Your task to perform on an android device: turn off translation in the chrome app Image 0: 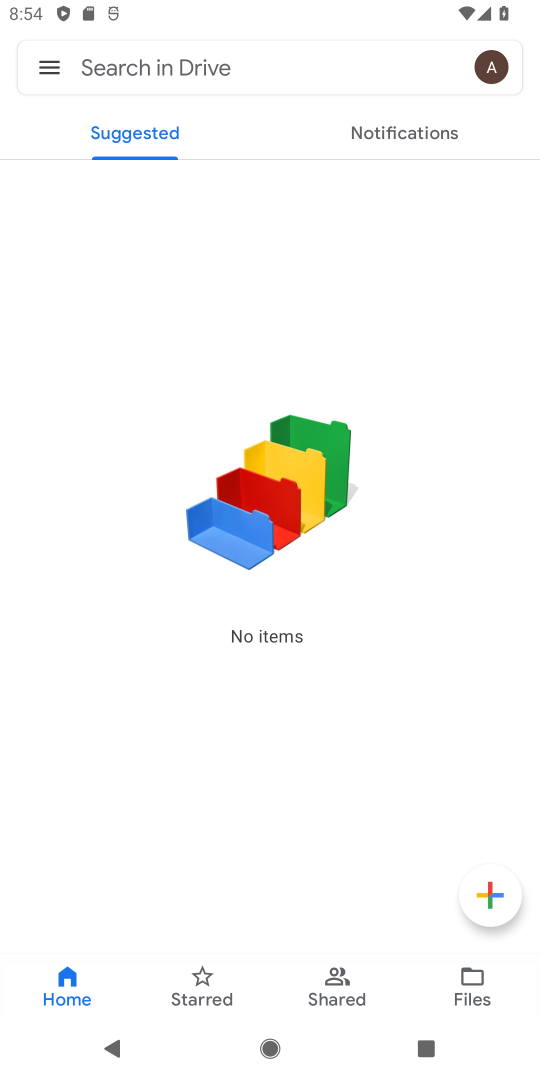
Step 0: press home button
Your task to perform on an android device: turn off translation in the chrome app Image 1: 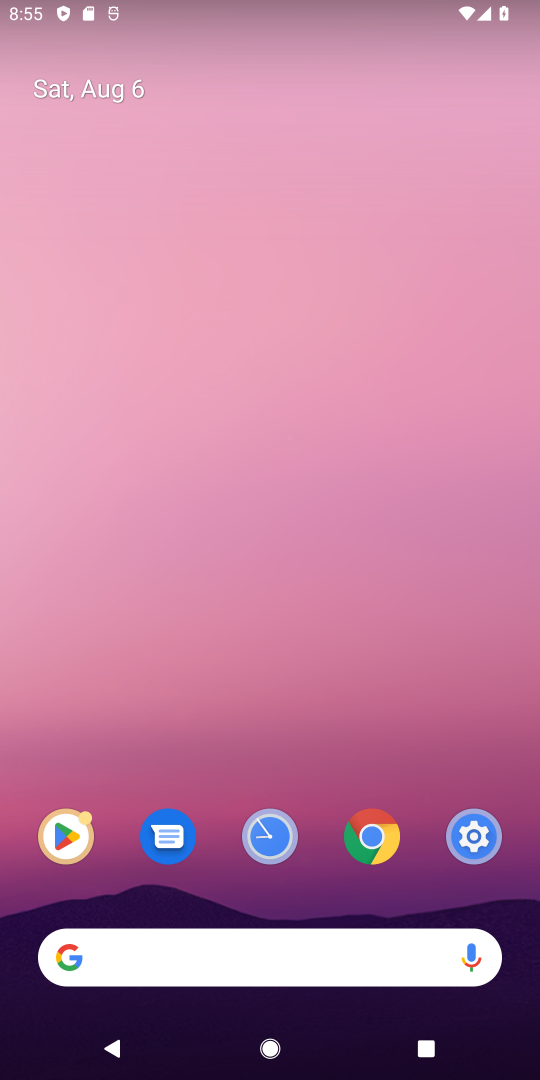
Step 1: click (384, 839)
Your task to perform on an android device: turn off translation in the chrome app Image 2: 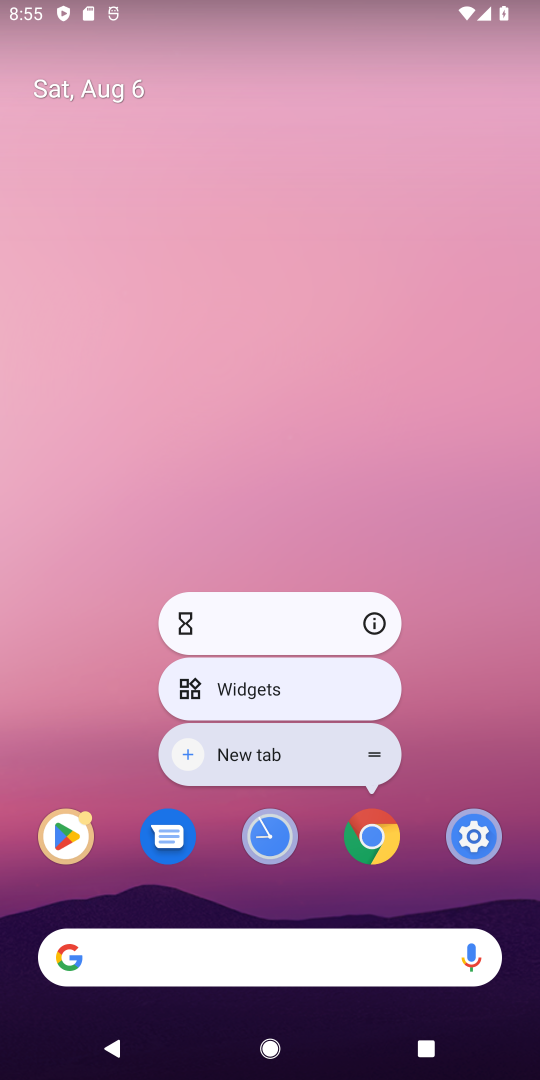
Step 2: click (197, 412)
Your task to perform on an android device: turn off translation in the chrome app Image 3: 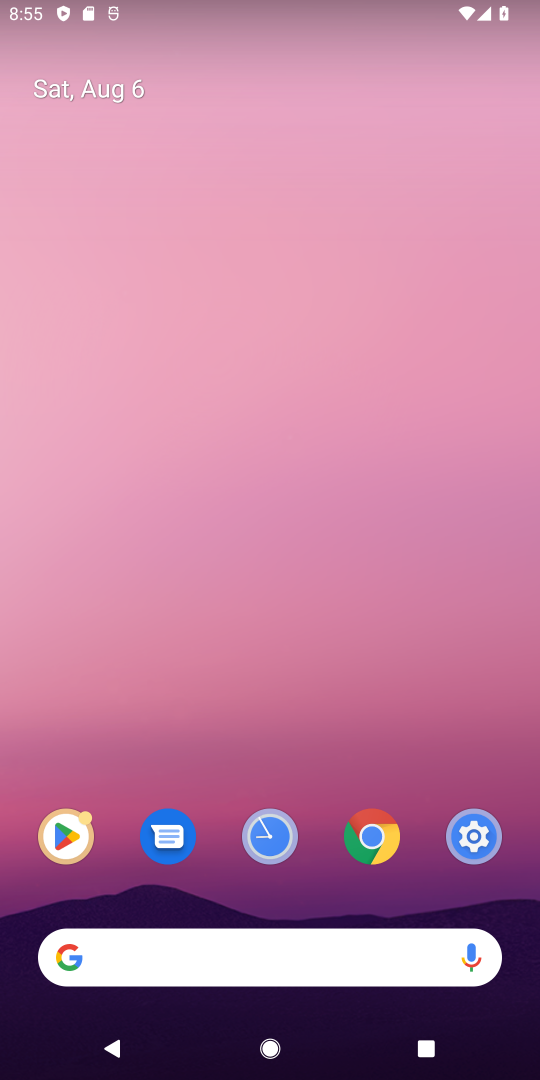
Step 3: click (362, 837)
Your task to perform on an android device: turn off translation in the chrome app Image 4: 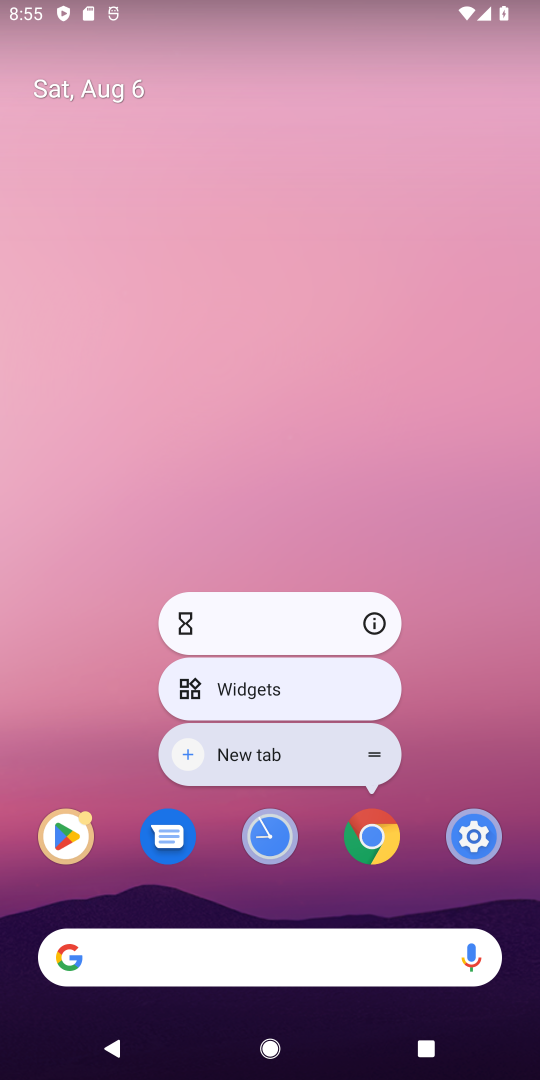
Step 4: click (377, 837)
Your task to perform on an android device: turn off translation in the chrome app Image 5: 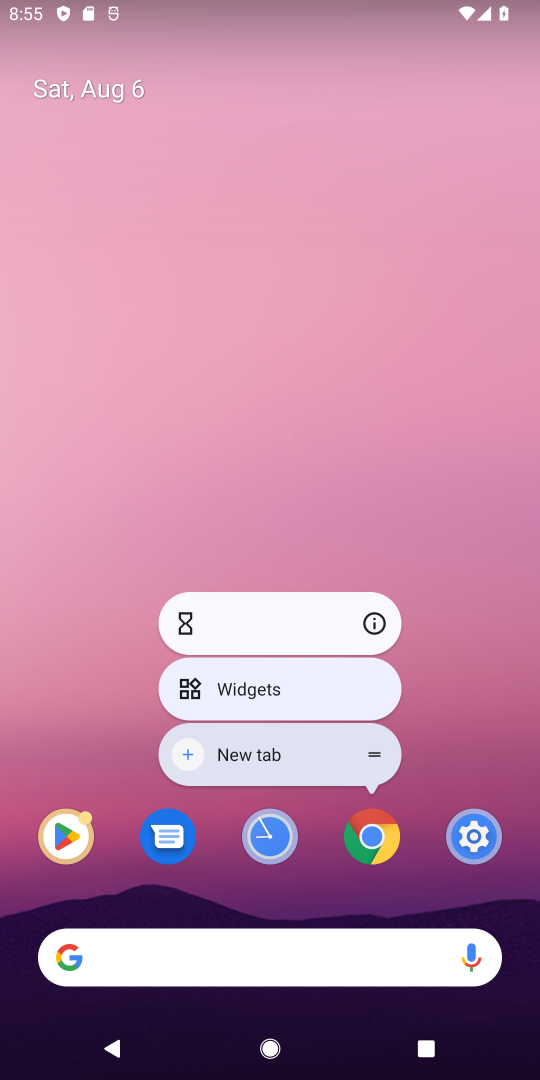
Step 5: click (374, 837)
Your task to perform on an android device: turn off translation in the chrome app Image 6: 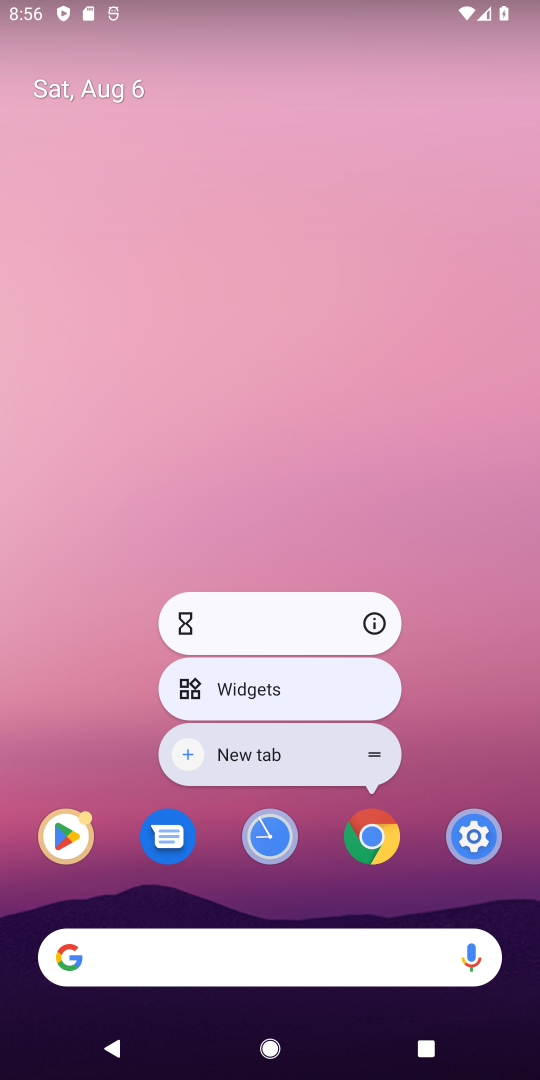
Step 6: click (368, 843)
Your task to perform on an android device: turn off translation in the chrome app Image 7: 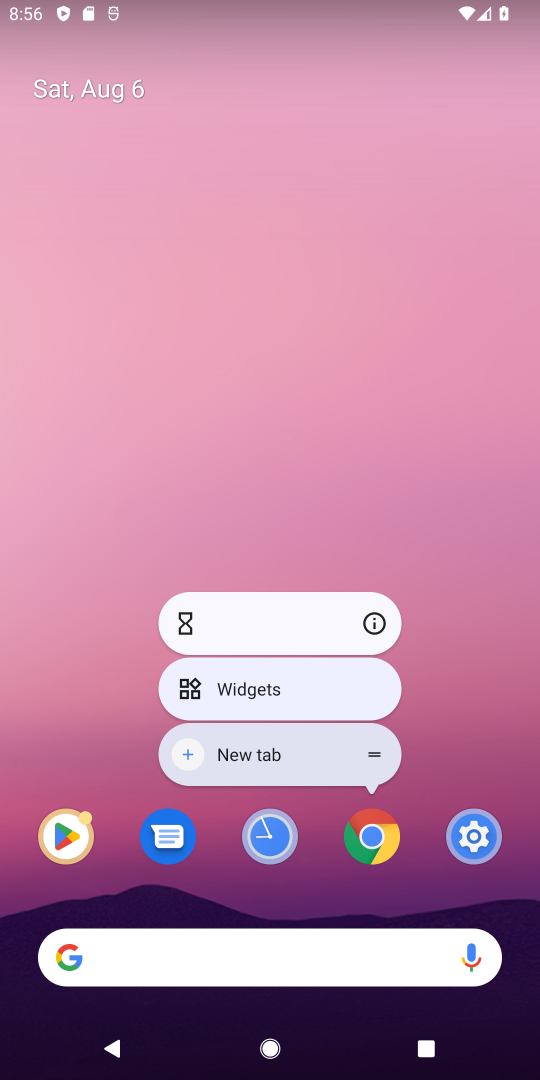
Step 7: click (364, 858)
Your task to perform on an android device: turn off translation in the chrome app Image 8: 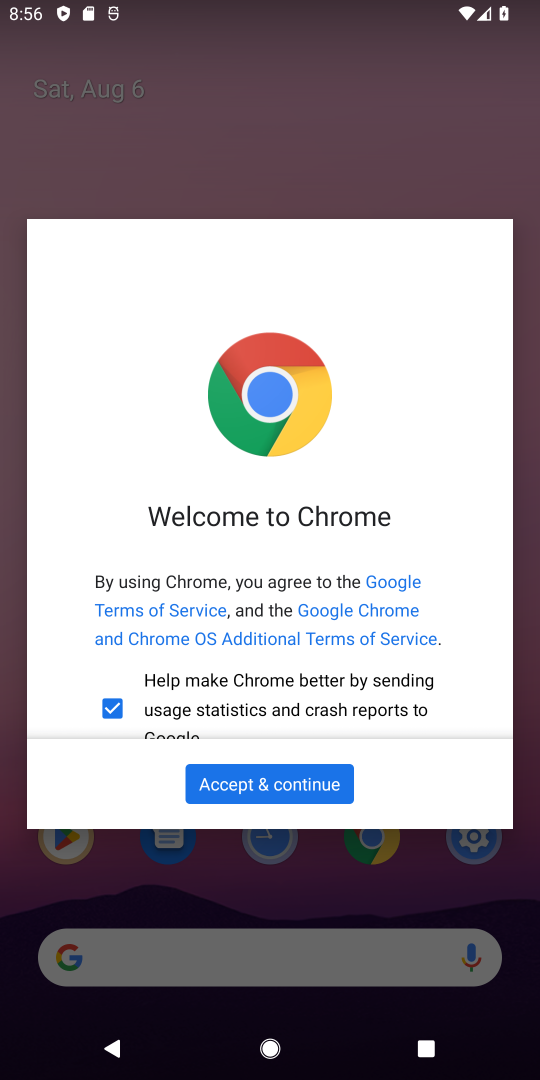
Step 8: click (276, 791)
Your task to perform on an android device: turn off translation in the chrome app Image 9: 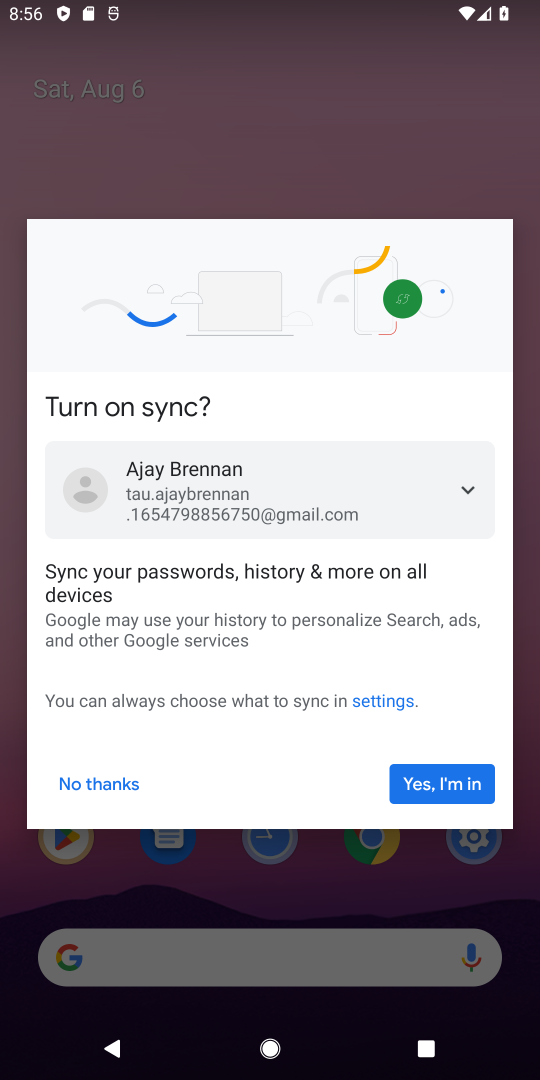
Step 9: click (464, 786)
Your task to perform on an android device: turn off translation in the chrome app Image 10: 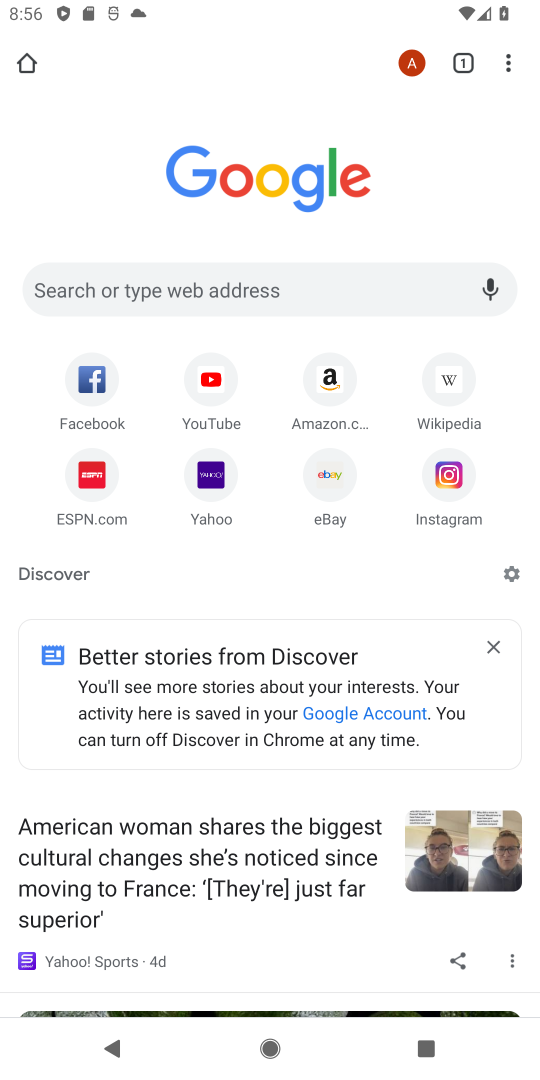
Step 10: drag from (515, 58) to (349, 544)
Your task to perform on an android device: turn off translation in the chrome app Image 11: 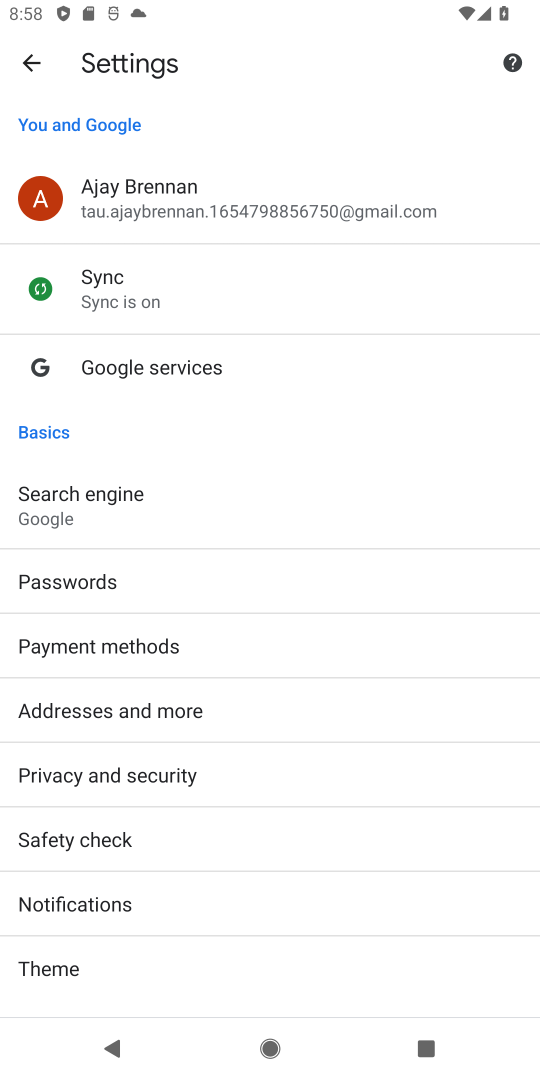
Step 11: drag from (298, 914) to (287, 412)
Your task to perform on an android device: turn off translation in the chrome app Image 12: 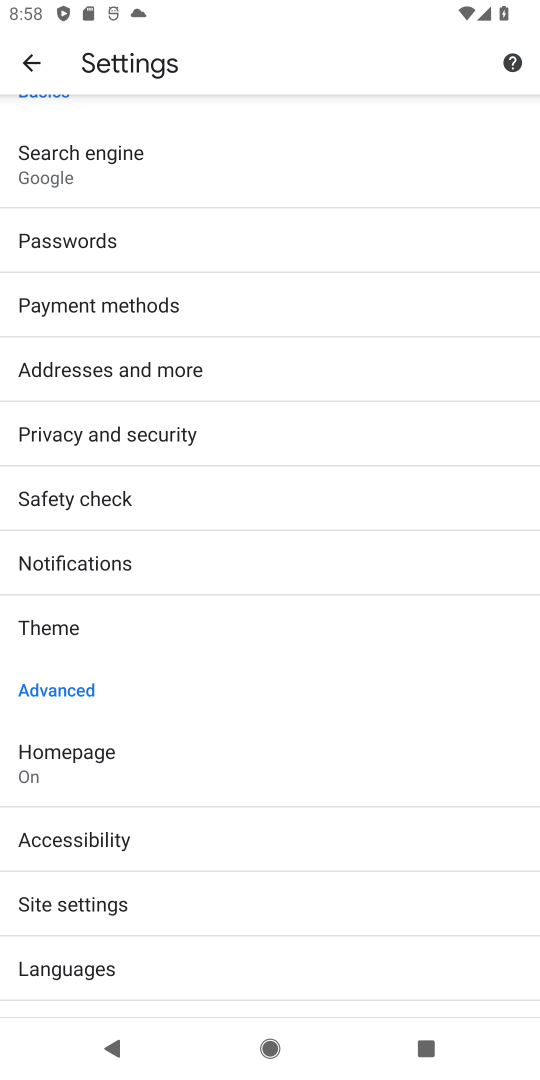
Step 12: click (78, 968)
Your task to perform on an android device: turn off translation in the chrome app Image 13: 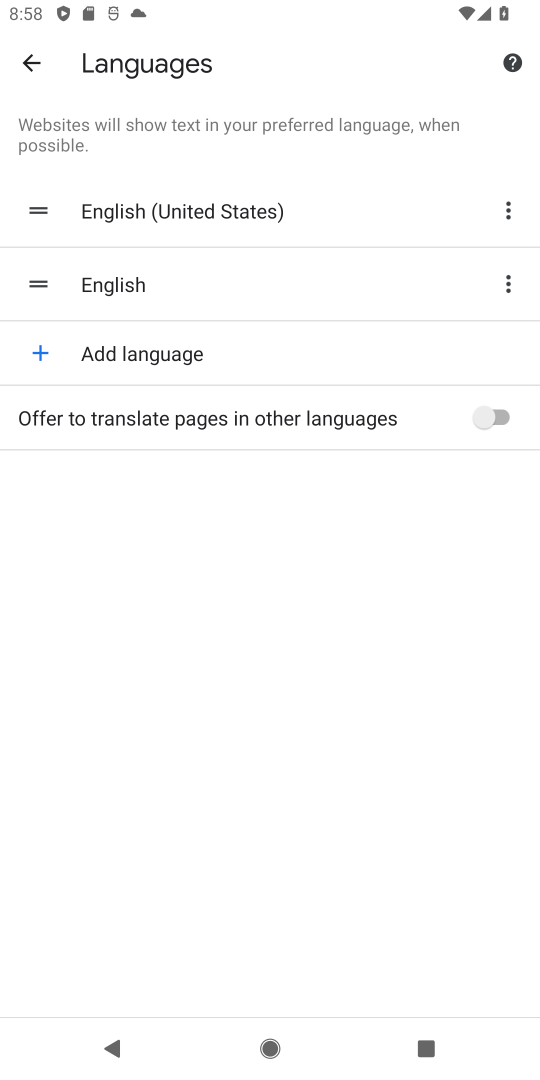
Step 13: task complete